Your task to perform on an android device: Open Chrome and go to the settings page Image 0: 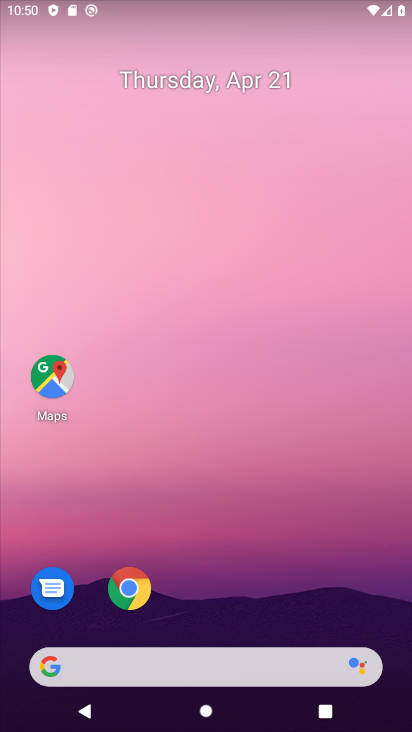
Step 0: click (129, 606)
Your task to perform on an android device: Open Chrome and go to the settings page Image 1: 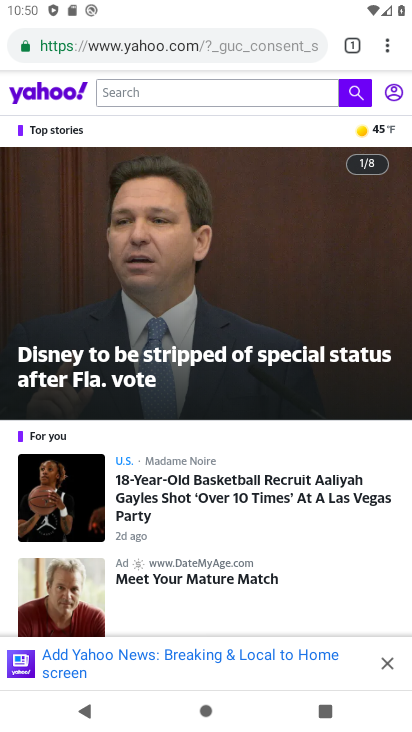
Step 1: task complete